Your task to perform on an android device: open a bookmark in the chrome app Image 0: 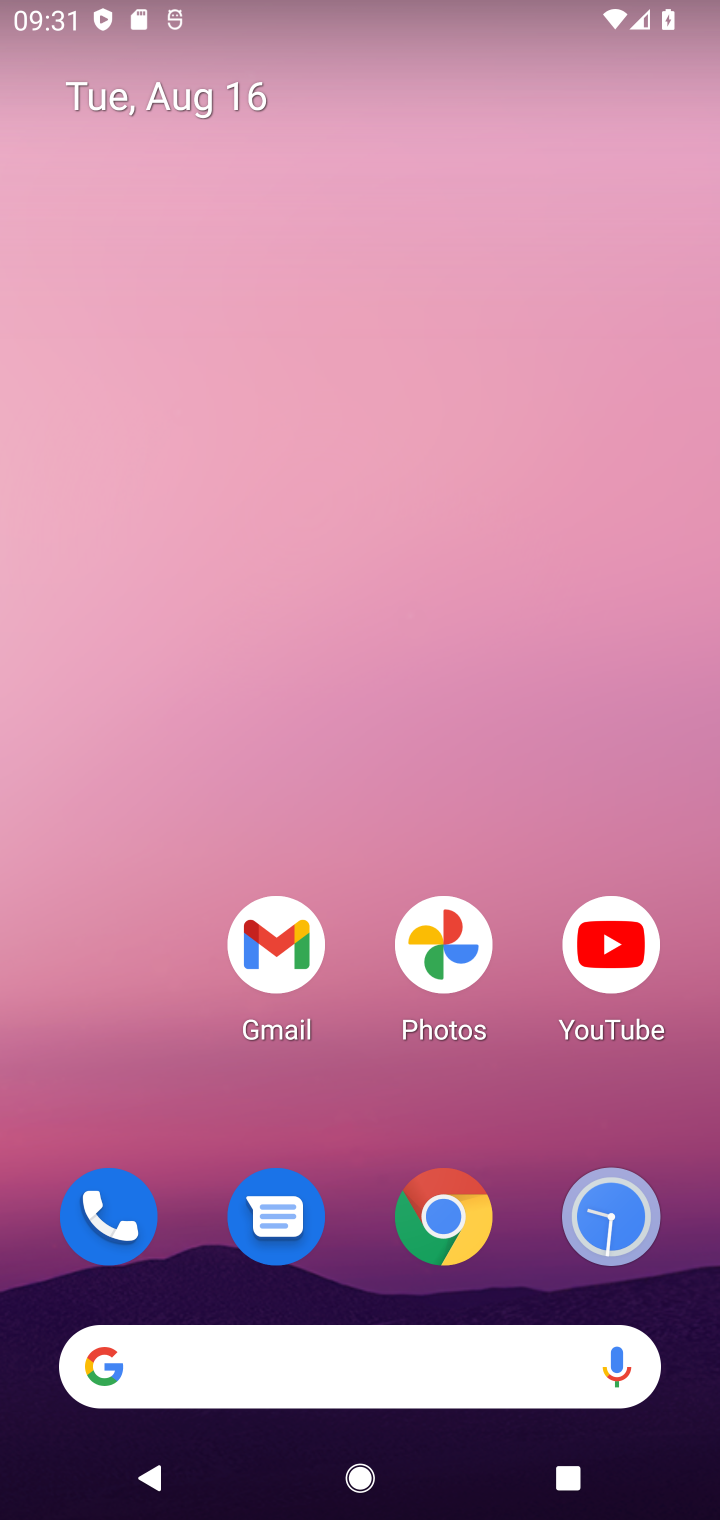
Step 0: click (441, 1214)
Your task to perform on an android device: open a bookmark in the chrome app Image 1: 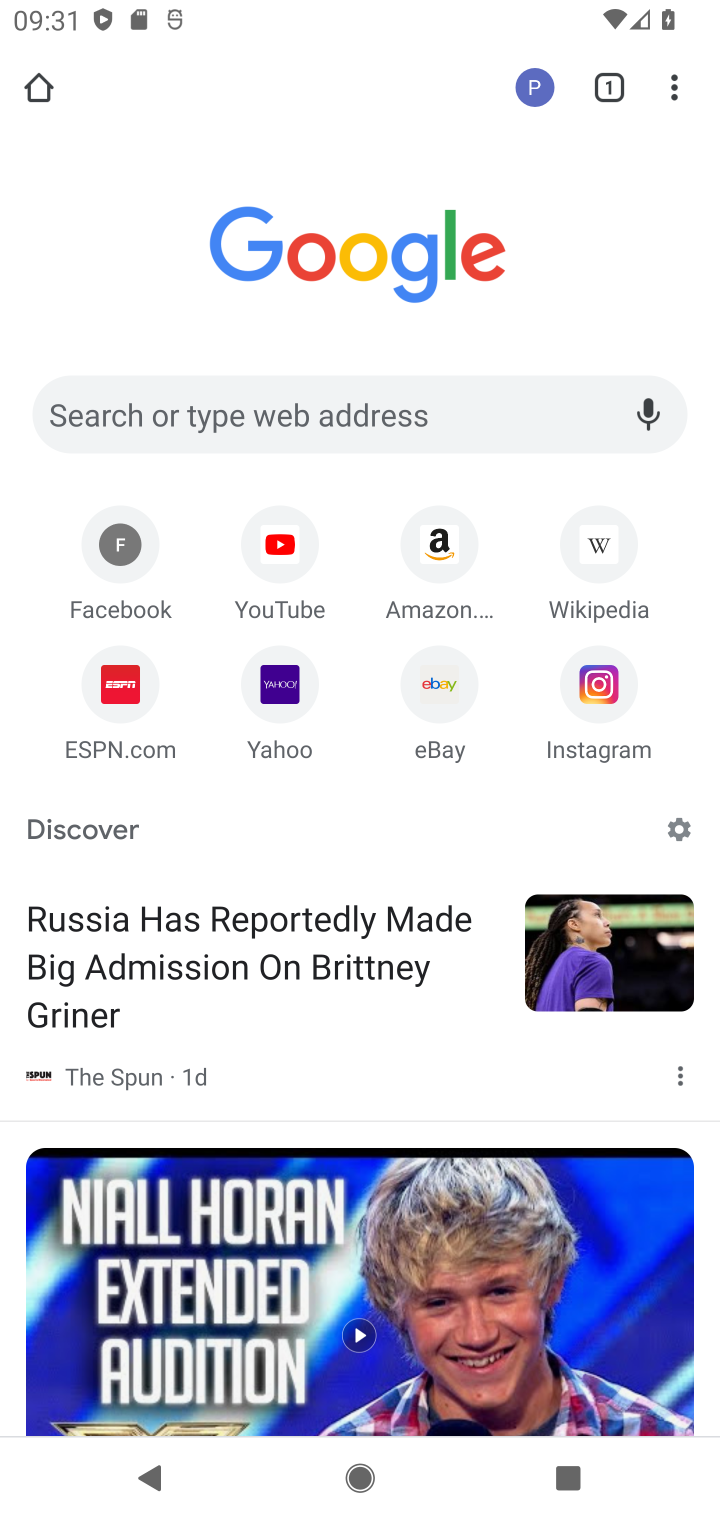
Step 1: click (672, 91)
Your task to perform on an android device: open a bookmark in the chrome app Image 2: 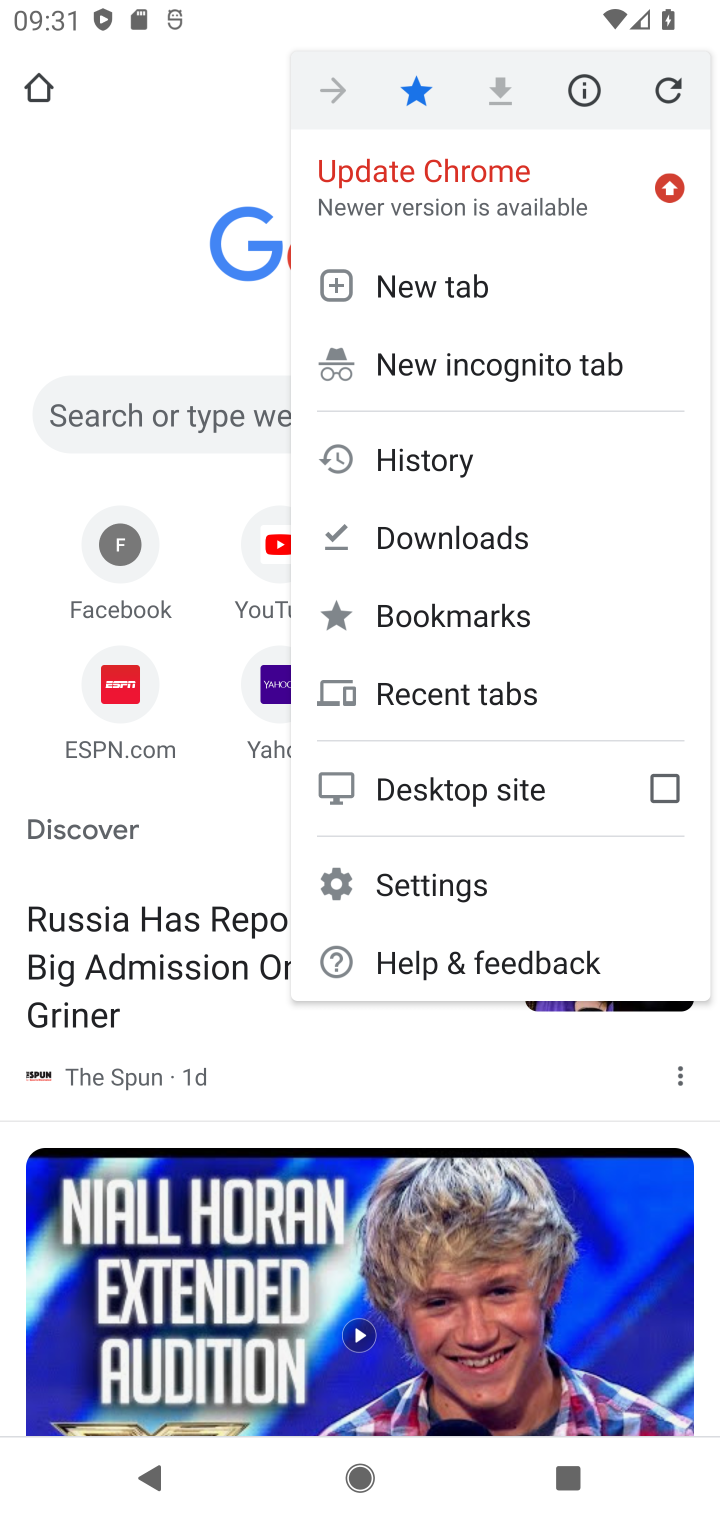
Step 2: click (439, 617)
Your task to perform on an android device: open a bookmark in the chrome app Image 3: 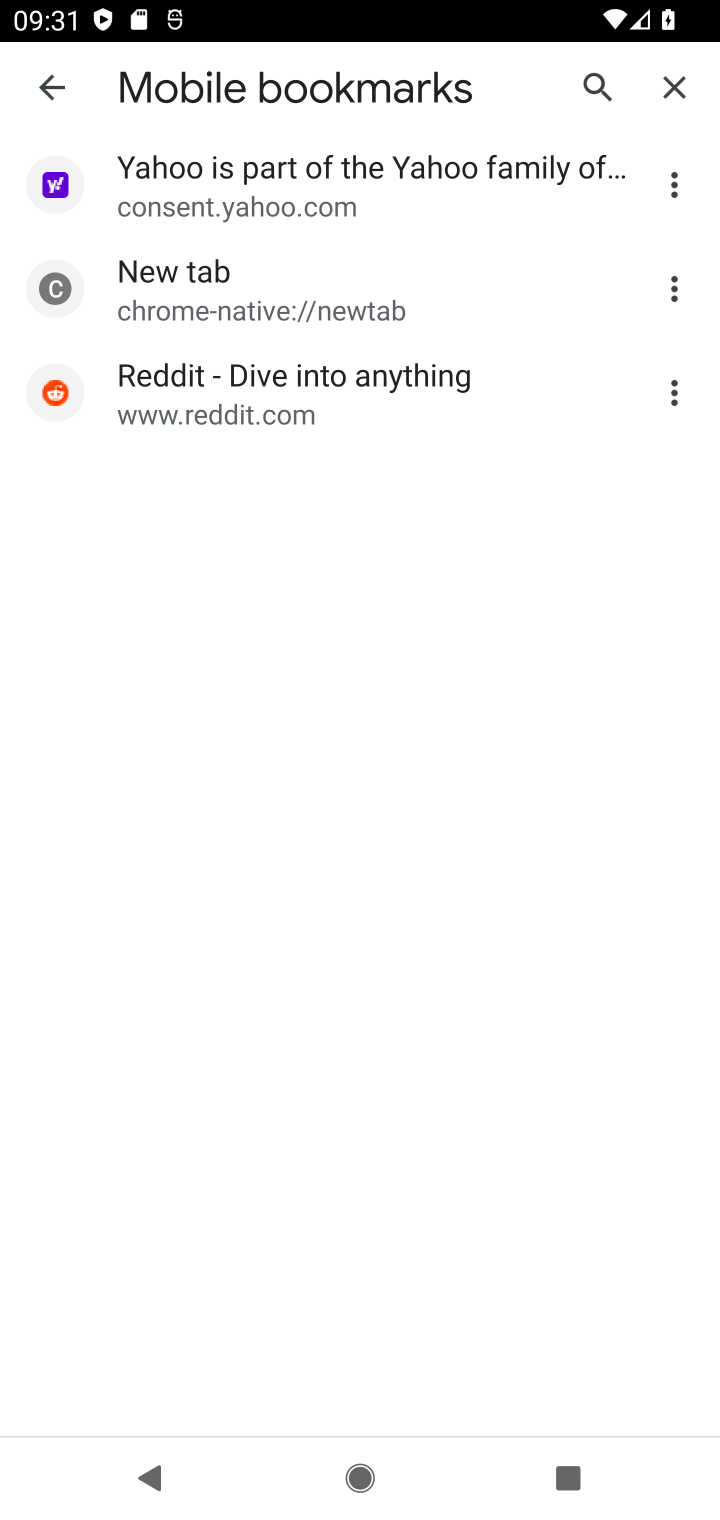
Step 3: click (225, 187)
Your task to perform on an android device: open a bookmark in the chrome app Image 4: 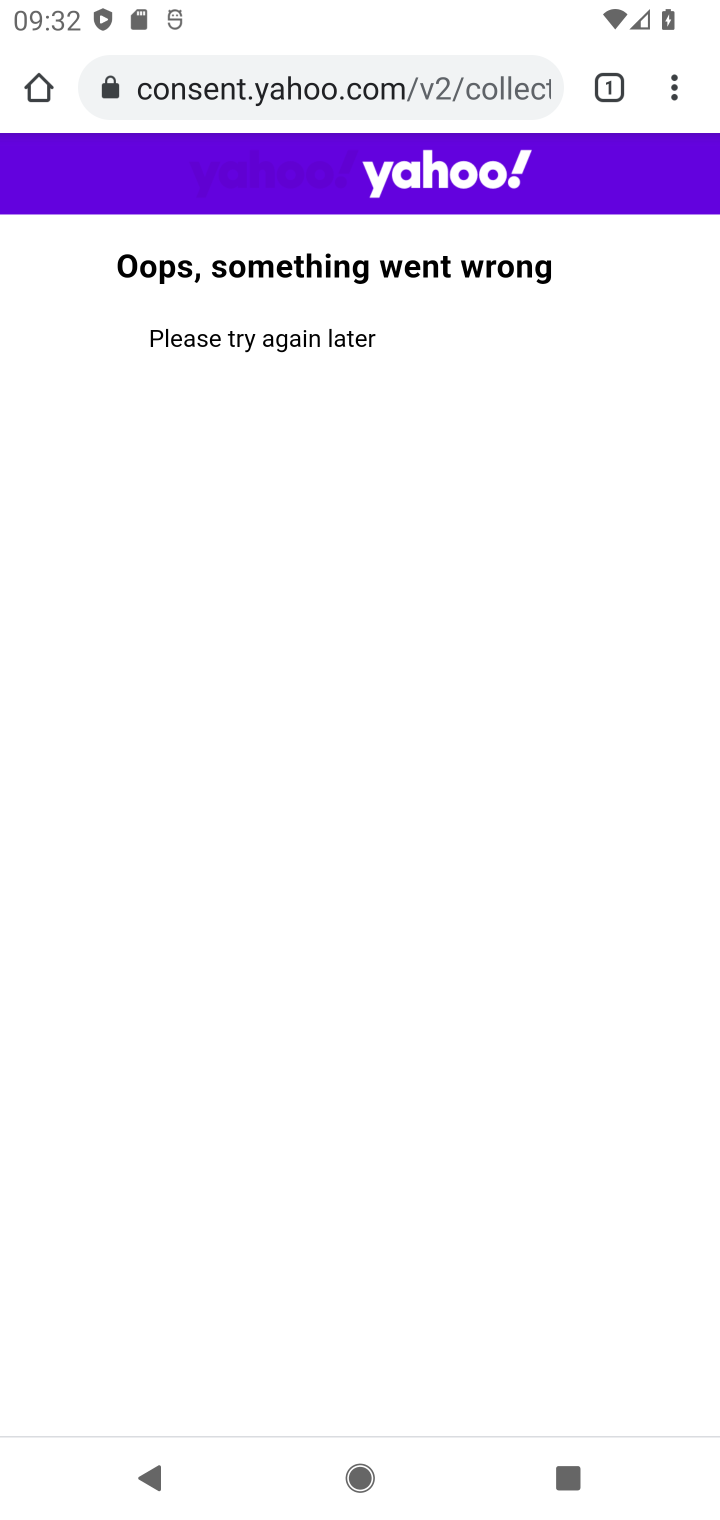
Step 4: task complete